Your task to perform on an android device: toggle notifications settings in the gmail app Image 0: 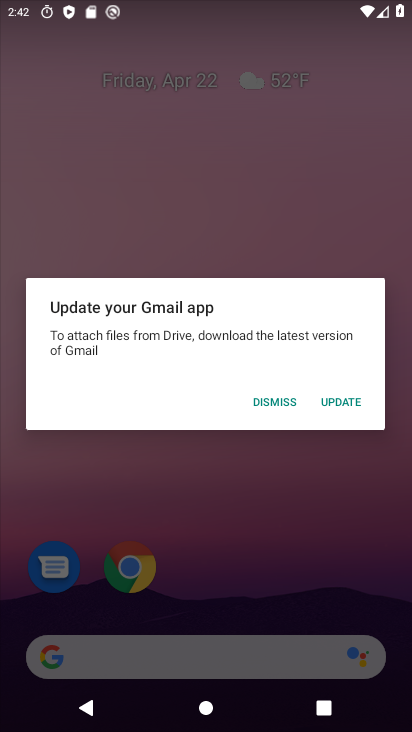
Step 0: press home button
Your task to perform on an android device: toggle notifications settings in the gmail app Image 1: 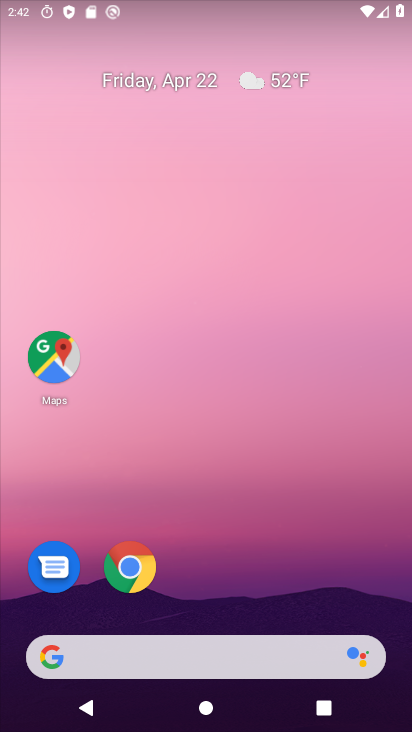
Step 1: drag from (220, 502) to (190, 122)
Your task to perform on an android device: toggle notifications settings in the gmail app Image 2: 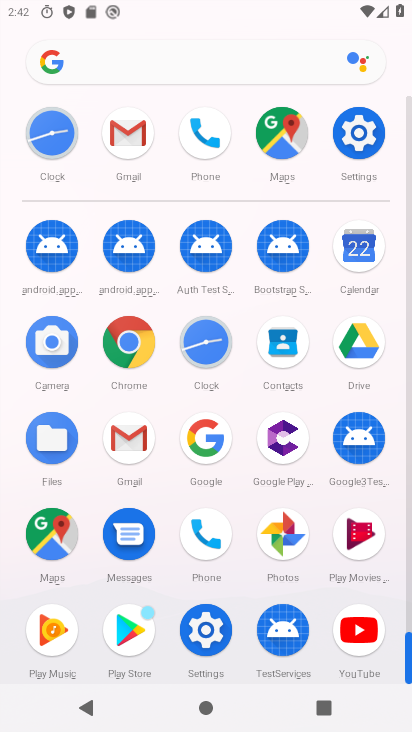
Step 2: click (120, 132)
Your task to perform on an android device: toggle notifications settings in the gmail app Image 3: 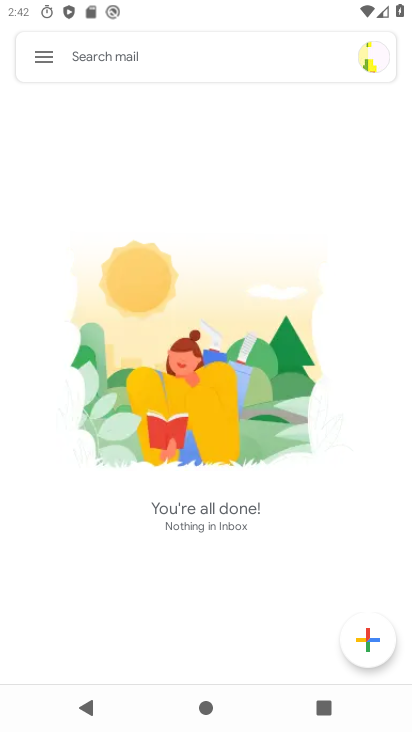
Step 3: click (48, 52)
Your task to perform on an android device: toggle notifications settings in the gmail app Image 4: 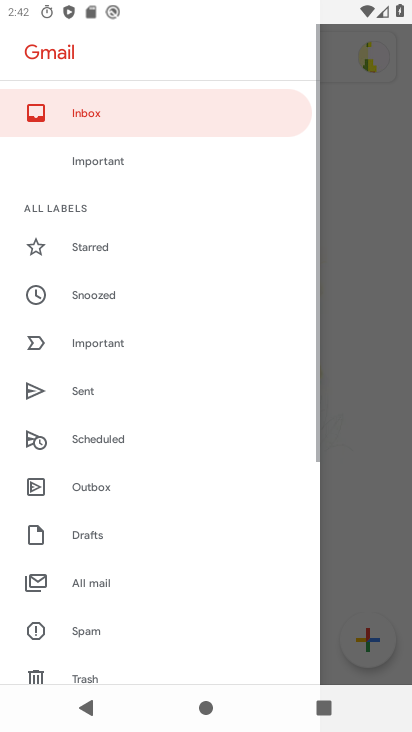
Step 4: drag from (134, 559) to (140, 211)
Your task to perform on an android device: toggle notifications settings in the gmail app Image 5: 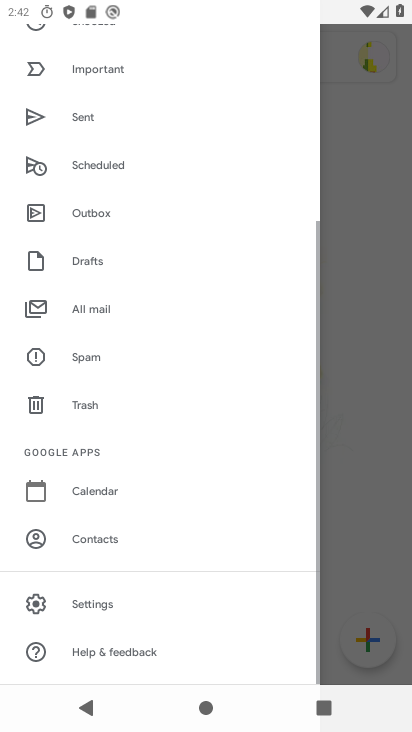
Step 5: click (109, 594)
Your task to perform on an android device: toggle notifications settings in the gmail app Image 6: 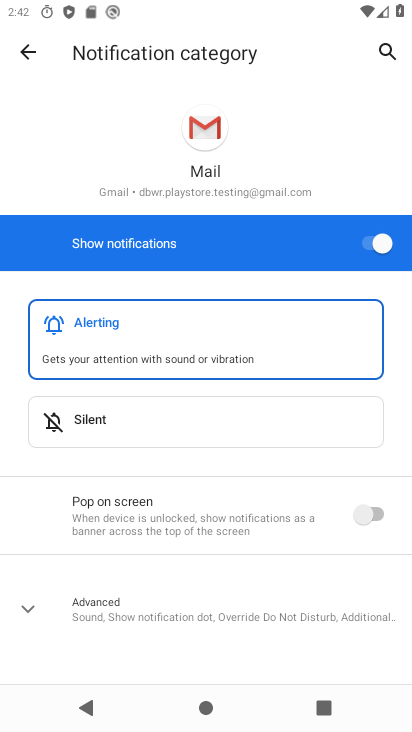
Step 6: click (380, 236)
Your task to perform on an android device: toggle notifications settings in the gmail app Image 7: 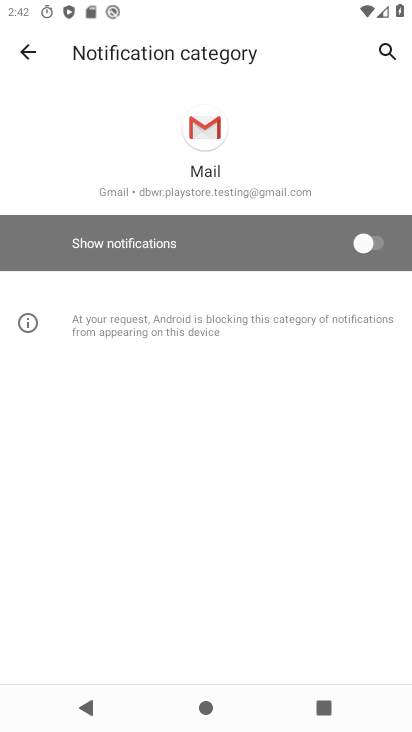
Step 7: task complete